Your task to perform on an android device: Open Google Maps and go to "Timeline" Image 0: 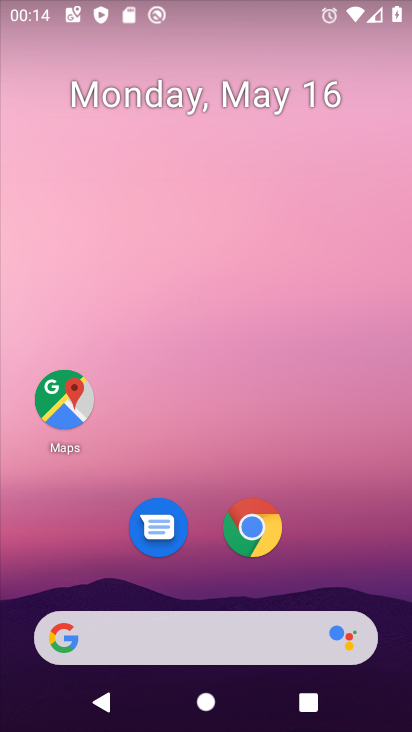
Step 0: click (76, 411)
Your task to perform on an android device: Open Google Maps and go to "Timeline" Image 1: 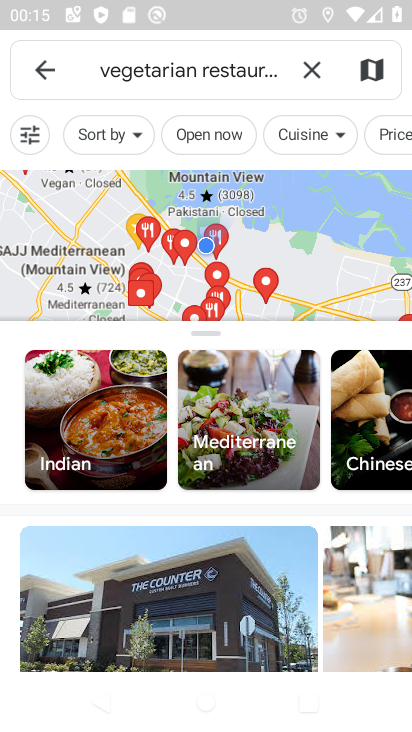
Step 1: click (32, 75)
Your task to perform on an android device: Open Google Maps and go to "Timeline" Image 2: 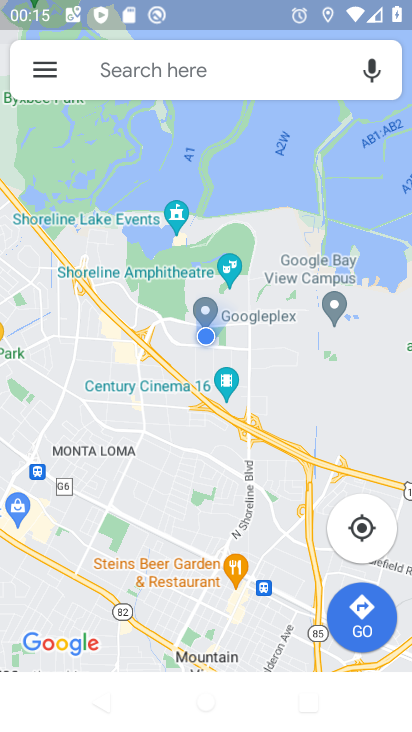
Step 2: click (32, 75)
Your task to perform on an android device: Open Google Maps and go to "Timeline" Image 3: 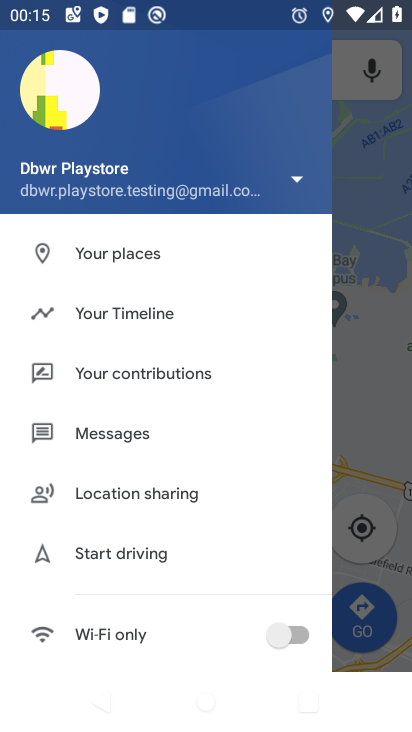
Step 3: click (87, 324)
Your task to perform on an android device: Open Google Maps and go to "Timeline" Image 4: 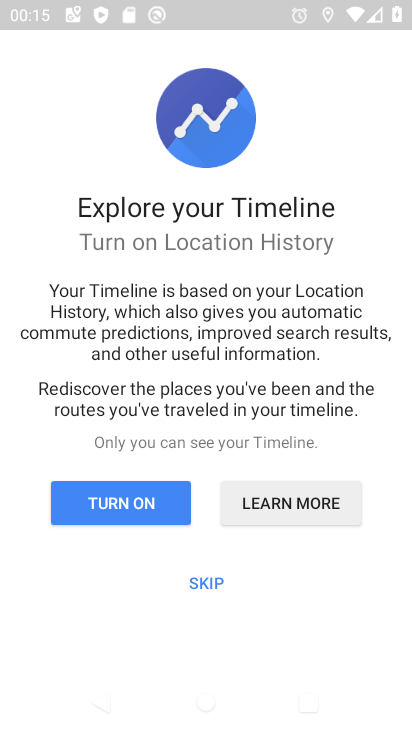
Step 4: task complete